Your task to perform on an android device: open a bookmark in the chrome app Image 0: 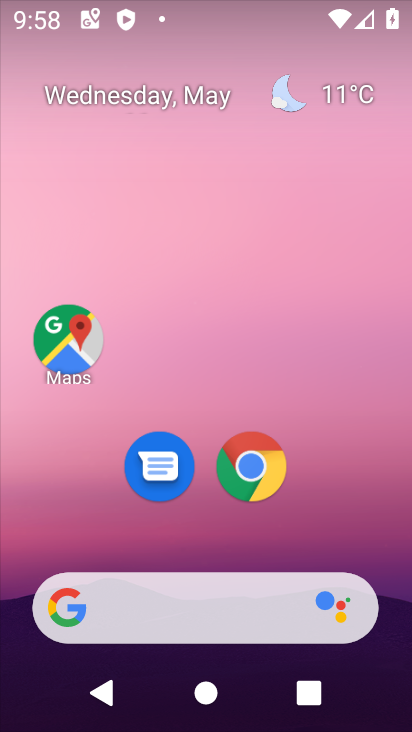
Step 0: click (249, 495)
Your task to perform on an android device: open a bookmark in the chrome app Image 1: 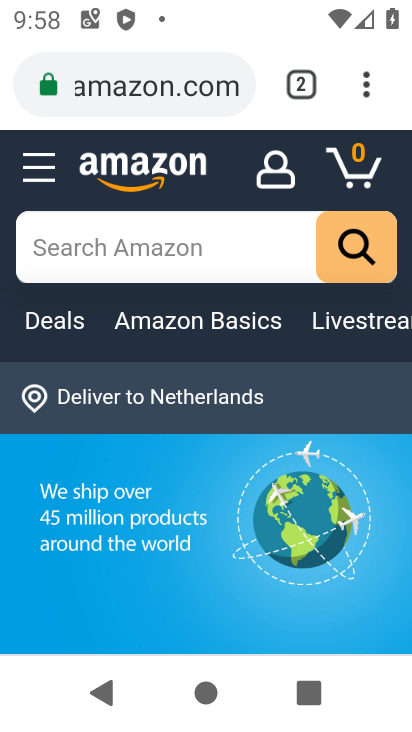
Step 1: click (365, 78)
Your task to perform on an android device: open a bookmark in the chrome app Image 2: 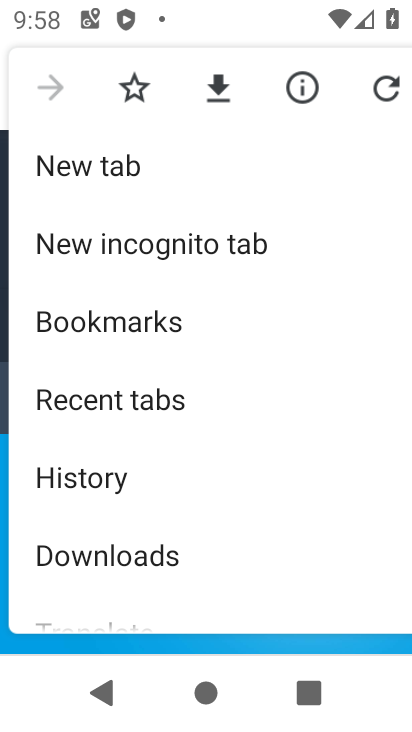
Step 2: drag from (196, 551) to (233, 153)
Your task to perform on an android device: open a bookmark in the chrome app Image 3: 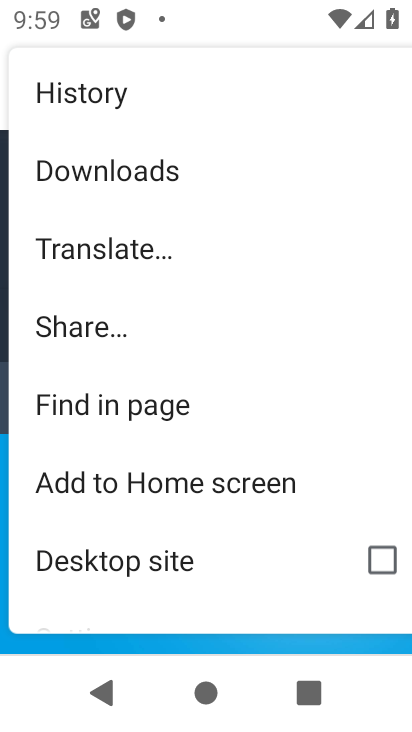
Step 3: drag from (169, 240) to (167, 558)
Your task to perform on an android device: open a bookmark in the chrome app Image 4: 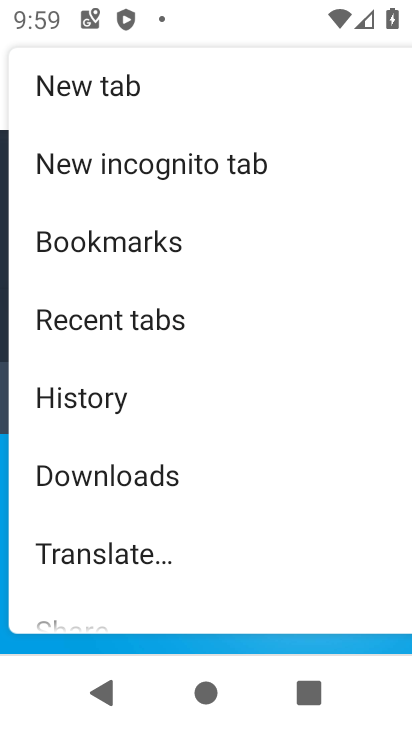
Step 4: click (140, 244)
Your task to perform on an android device: open a bookmark in the chrome app Image 5: 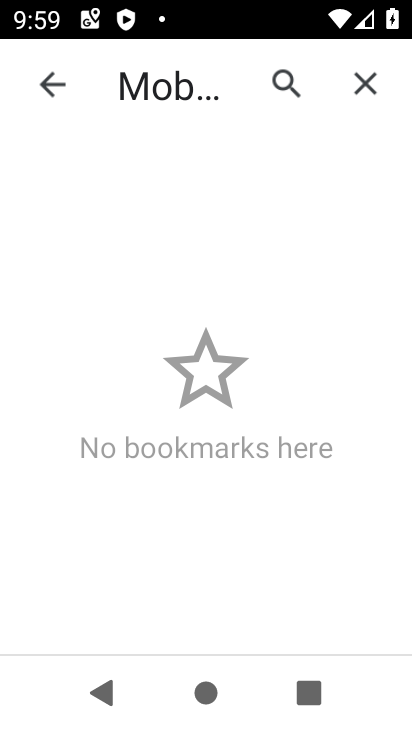
Step 5: task complete